Your task to perform on an android device: Go to privacy settings Image 0: 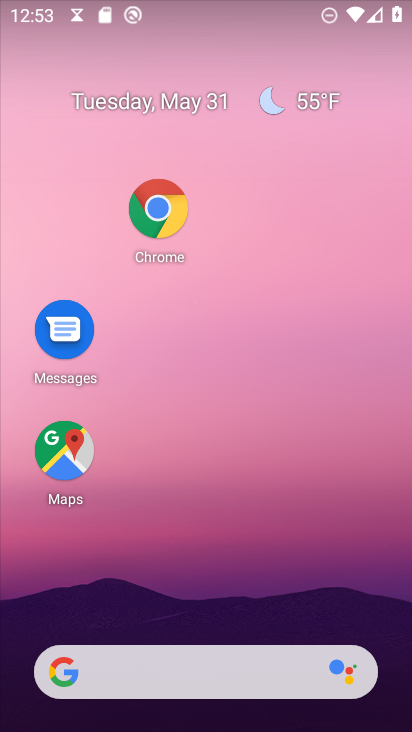
Step 0: drag from (247, 601) to (244, 158)
Your task to perform on an android device: Go to privacy settings Image 1: 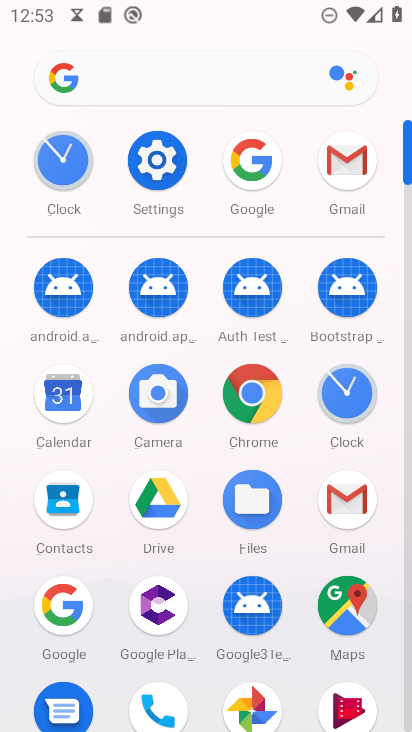
Step 1: click (148, 174)
Your task to perform on an android device: Go to privacy settings Image 2: 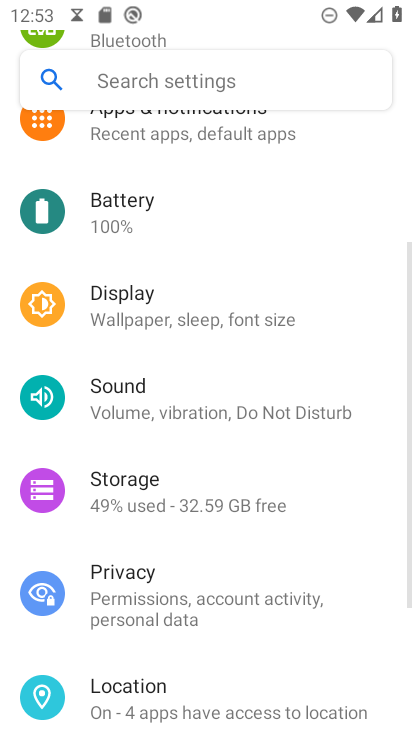
Step 2: drag from (200, 599) to (168, 256)
Your task to perform on an android device: Go to privacy settings Image 3: 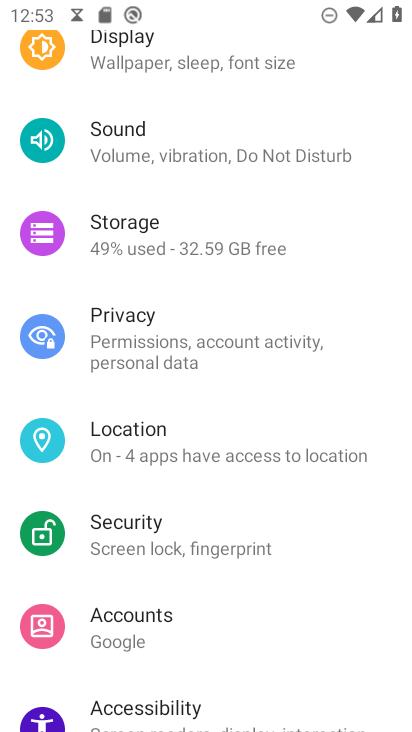
Step 3: click (146, 334)
Your task to perform on an android device: Go to privacy settings Image 4: 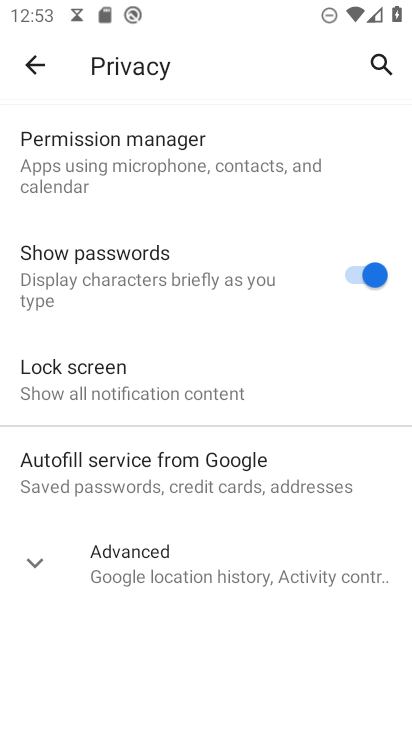
Step 4: task complete